Your task to perform on an android device: change the upload size in google photos Image 0: 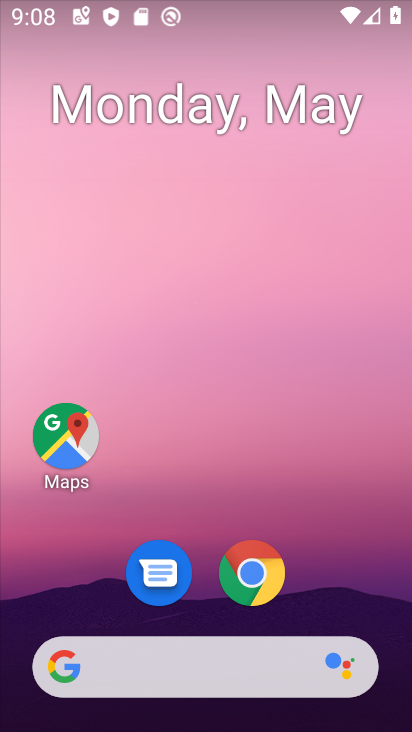
Step 0: drag from (344, 575) to (186, 15)
Your task to perform on an android device: change the upload size in google photos Image 1: 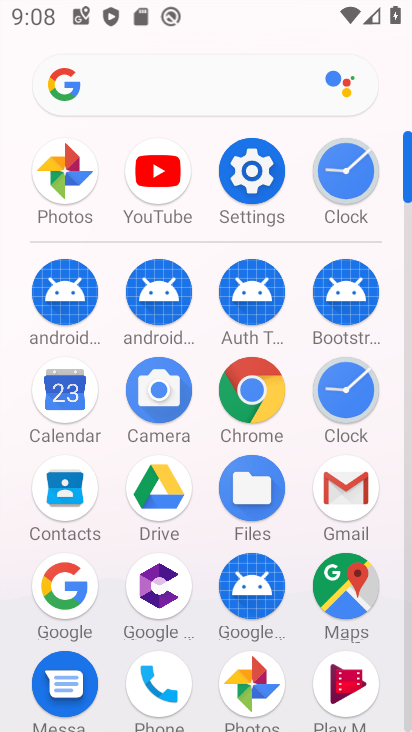
Step 1: click (265, 663)
Your task to perform on an android device: change the upload size in google photos Image 2: 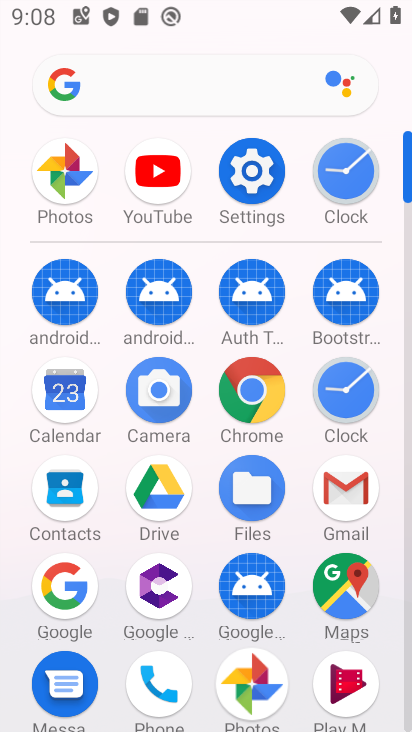
Step 2: click (265, 663)
Your task to perform on an android device: change the upload size in google photos Image 3: 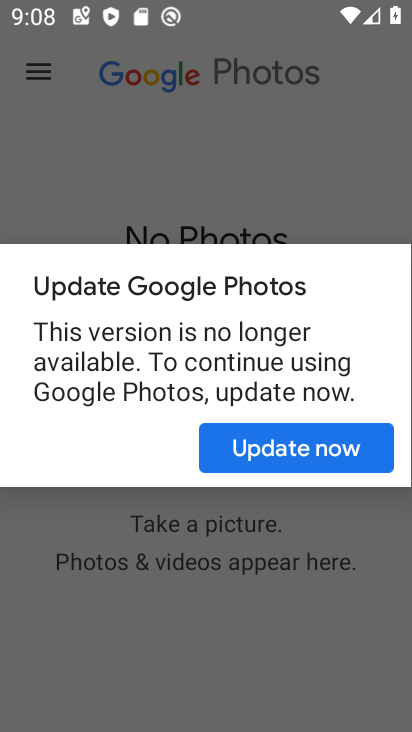
Step 3: click (270, 437)
Your task to perform on an android device: change the upload size in google photos Image 4: 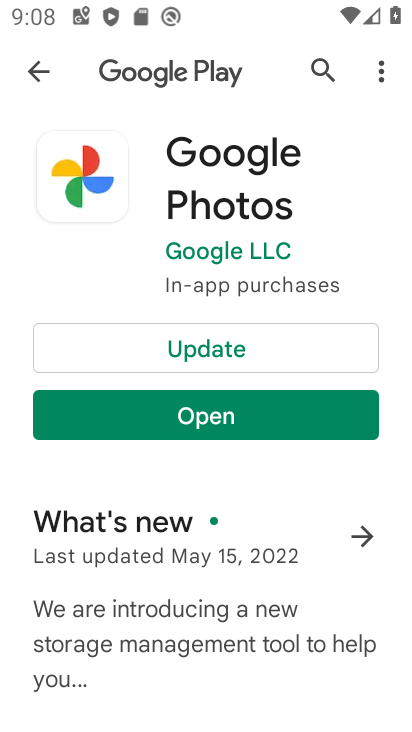
Step 4: click (253, 352)
Your task to perform on an android device: change the upload size in google photos Image 5: 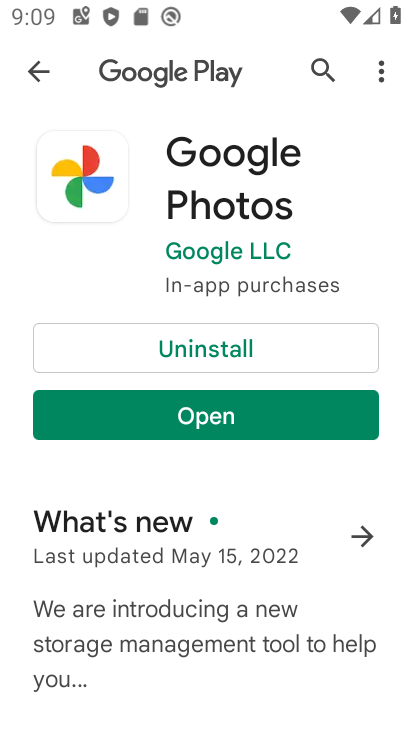
Step 5: click (245, 413)
Your task to perform on an android device: change the upload size in google photos Image 6: 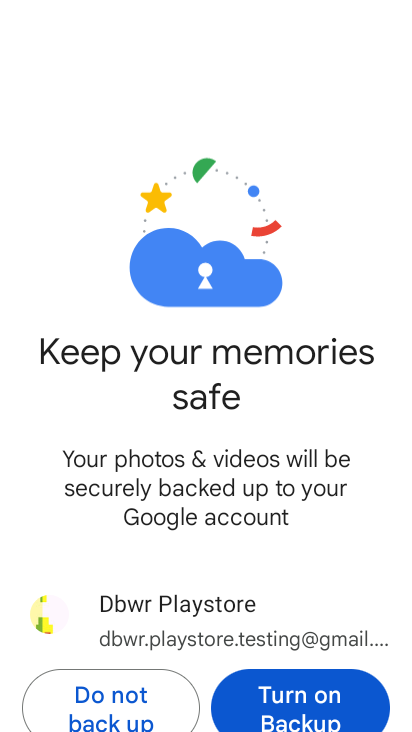
Step 6: click (298, 719)
Your task to perform on an android device: change the upload size in google photos Image 7: 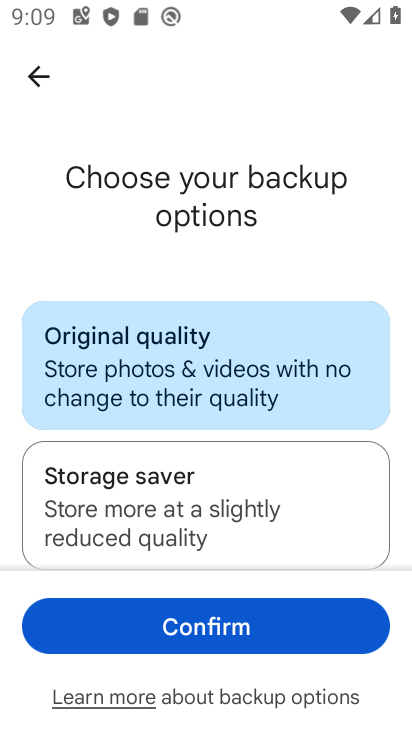
Step 7: click (174, 629)
Your task to perform on an android device: change the upload size in google photos Image 8: 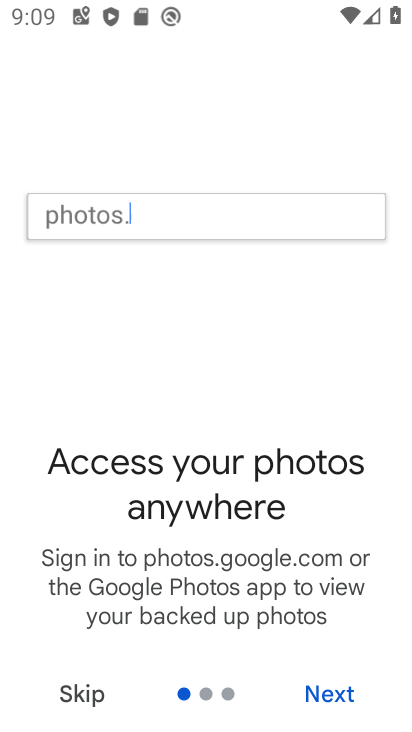
Step 8: task complete